Your task to perform on an android device: Search for Italian restaurants on Maps Image 0: 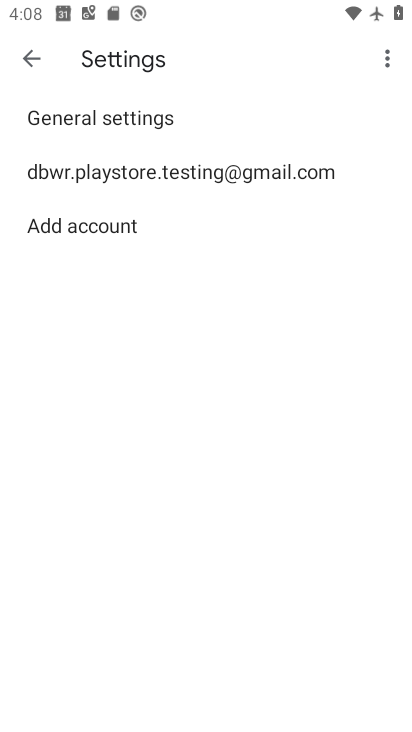
Step 0: press home button
Your task to perform on an android device: Search for Italian restaurants on Maps Image 1: 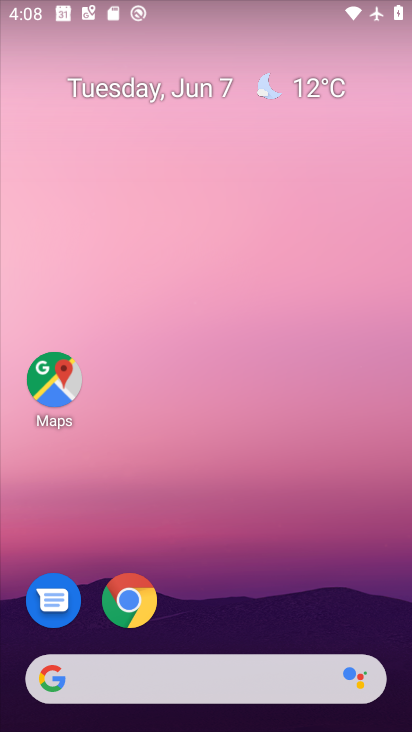
Step 1: click (59, 387)
Your task to perform on an android device: Search for Italian restaurants on Maps Image 2: 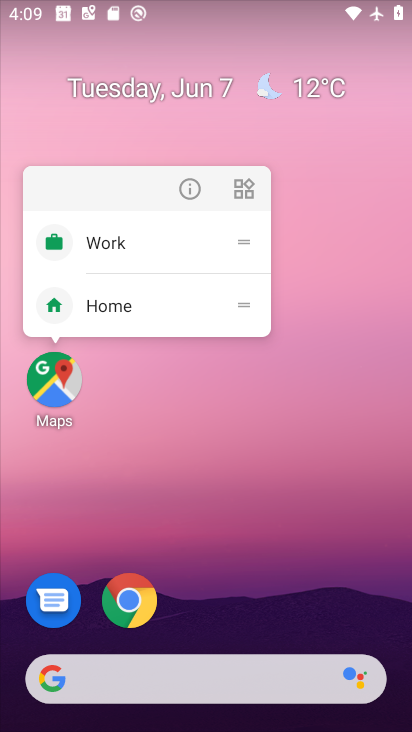
Step 2: click (58, 385)
Your task to perform on an android device: Search for Italian restaurants on Maps Image 3: 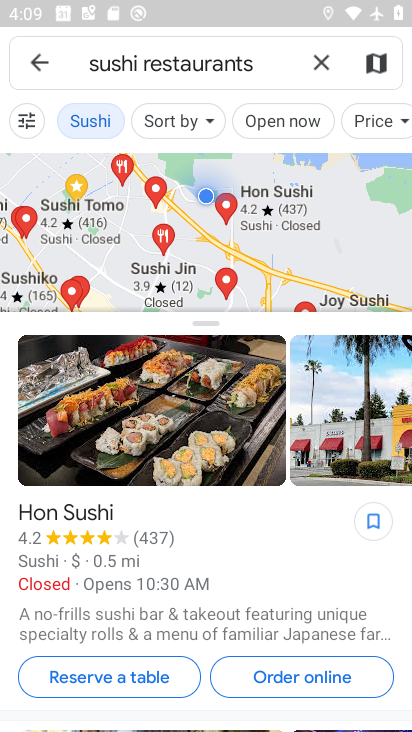
Step 3: click (317, 51)
Your task to perform on an android device: Search for Italian restaurants on Maps Image 4: 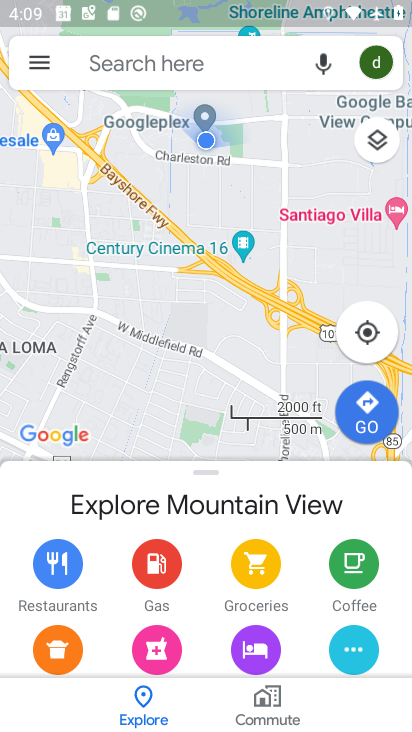
Step 4: click (238, 67)
Your task to perform on an android device: Search for Italian restaurants on Maps Image 5: 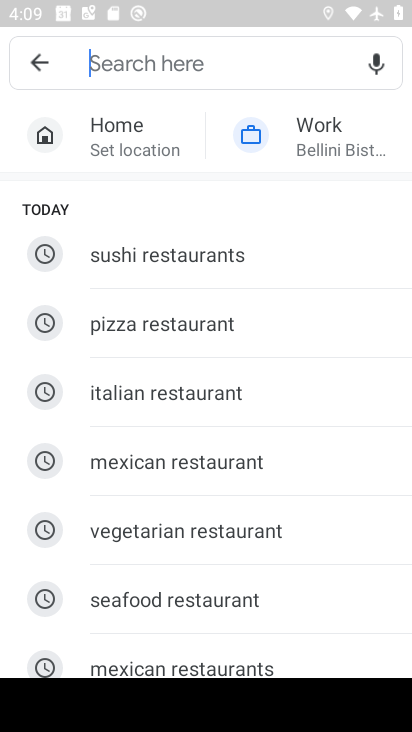
Step 5: type ""
Your task to perform on an android device: Search for Italian restaurants on Maps Image 6: 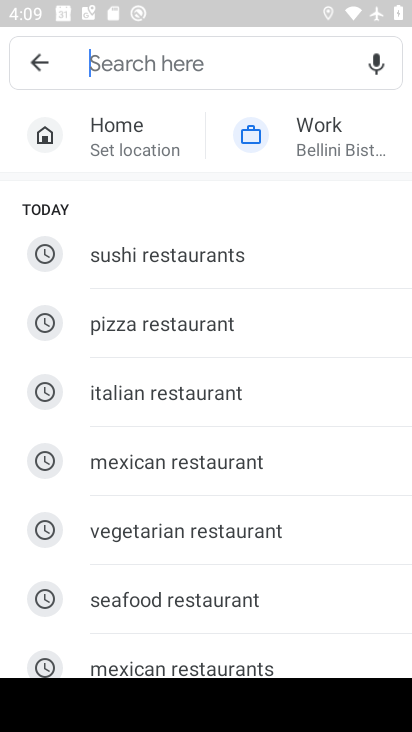
Step 6: type "Italian restaurants"
Your task to perform on an android device: Search for Italian restaurants on Maps Image 7: 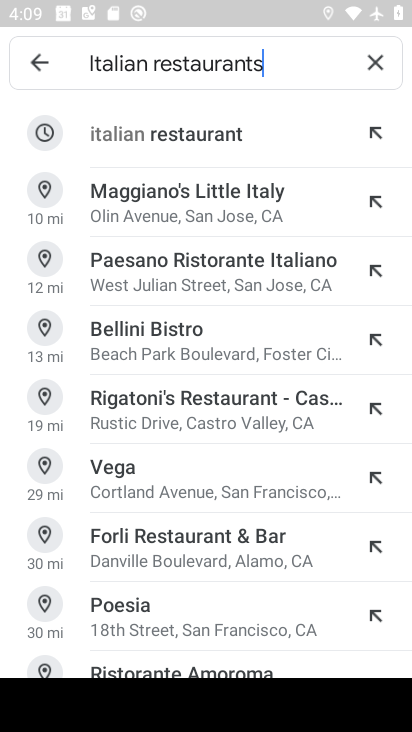
Step 7: press enter
Your task to perform on an android device: Search for Italian restaurants on Maps Image 8: 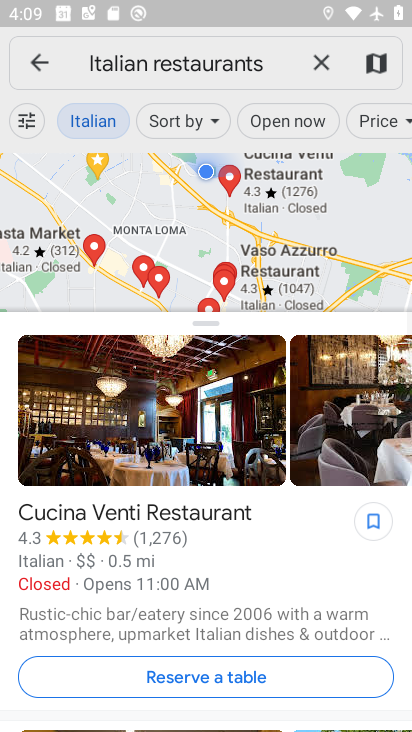
Step 8: task complete